Your task to perform on an android device: turn on improve location accuracy Image 0: 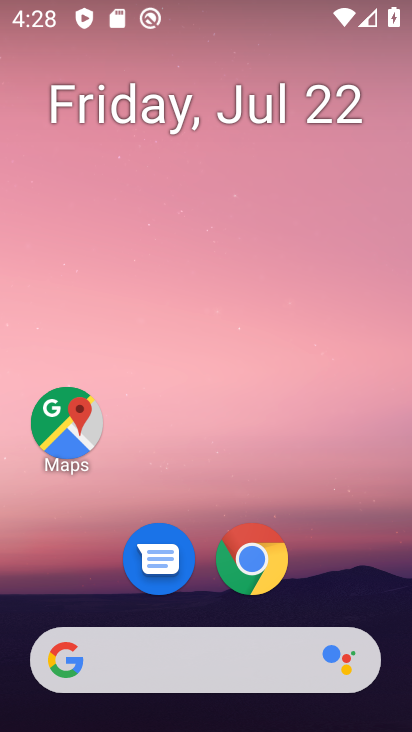
Step 0: drag from (90, 555) to (224, 12)
Your task to perform on an android device: turn on improve location accuracy Image 1: 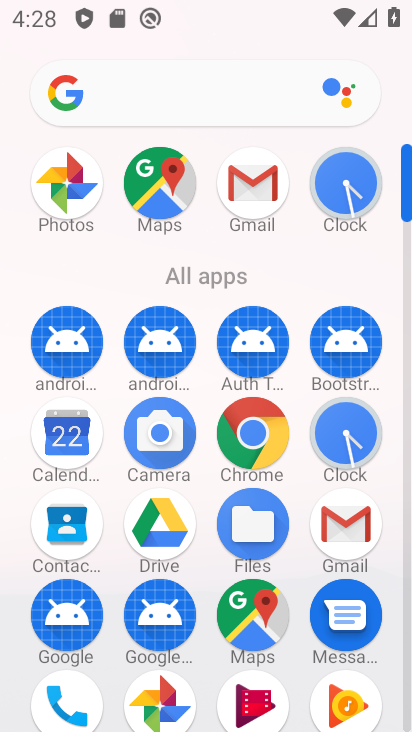
Step 1: drag from (156, 640) to (246, 81)
Your task to perform on an android device: turn on improve location accuracy Image 2: 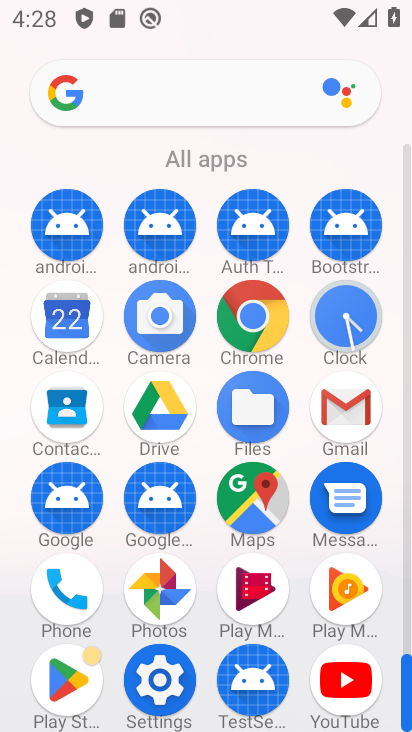
Step 2: click (165, 681)
Your task to perform on an android device: turn on improve location accuracy Image 3: 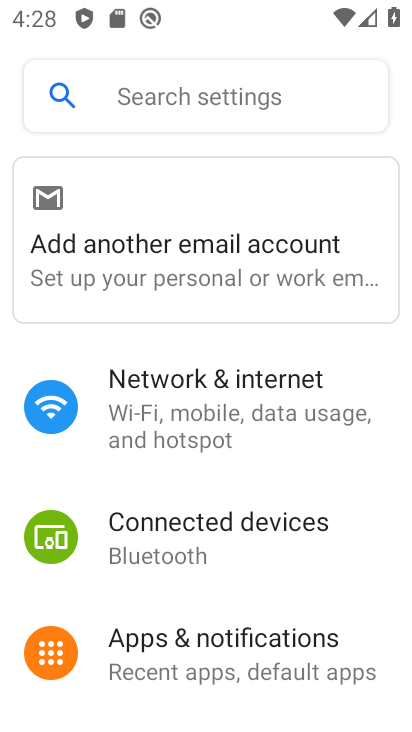
Step 3: drag from (177, 619) to (255, 44)
Your task to perform on an android device: turn on improve location accuracy Image 4: 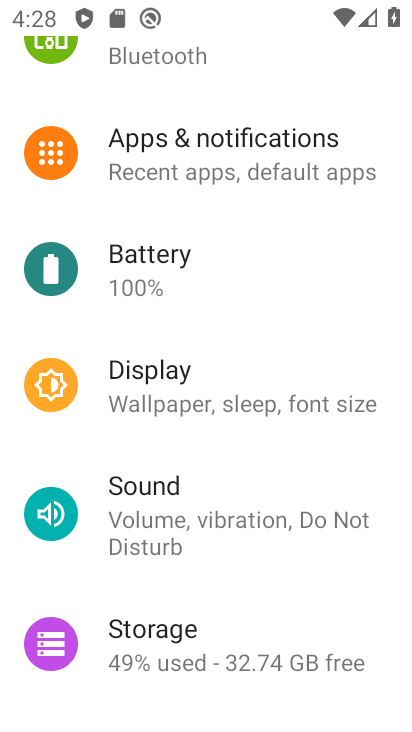
Step 4: drag from (189, 649) to (266, 102)
Your task to perform on an android device: turn on improve location accuracy Image 5: 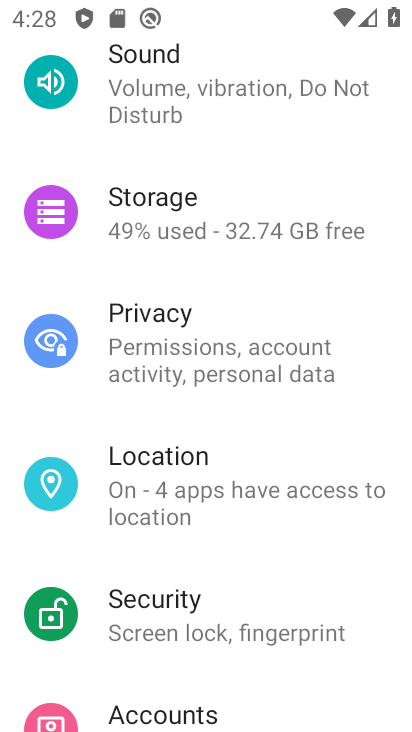
Step 5: click (206, 485)
Your task to perform on an android device: turn on improve location accuracy Image 6: 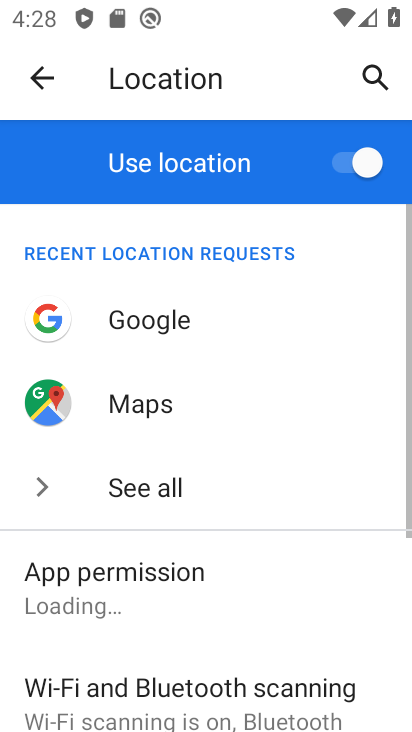
Step 6: drag from (136, 668) to (229, 103)
Your task to perform on an android device: turn on improve location accuracy Image 7: 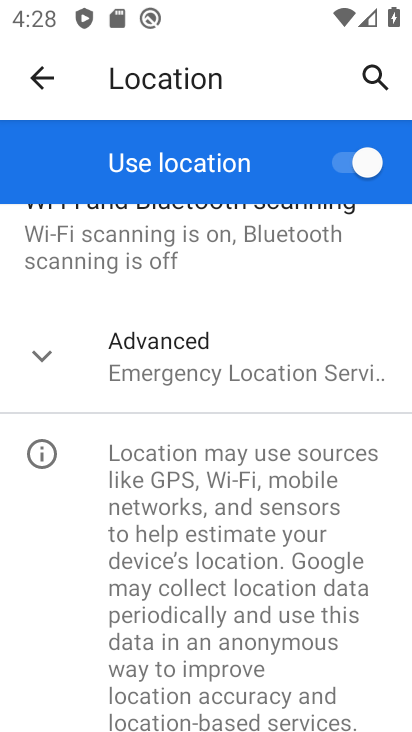
Step 7: click (155, 368)
Your task to perform on an android device: turn on improve location accuracy Image 8: 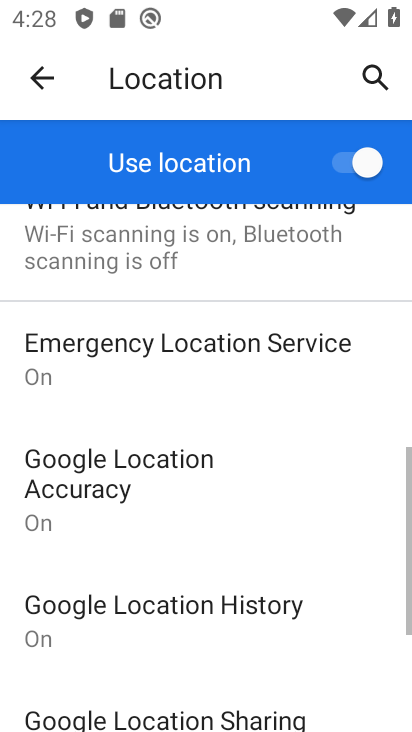
Step 8: click (123, 481)
Your task to perform on an android device: turn on improve location accuracy Image 9: 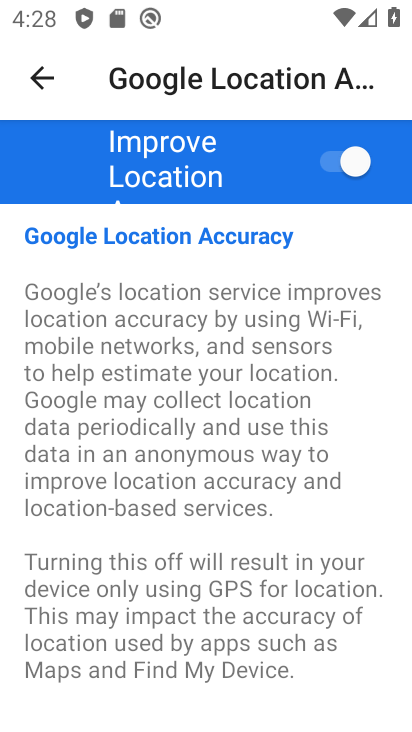
Step 9: task complete